Your task to perform on an android device: Open Yahoo.com Image 0: 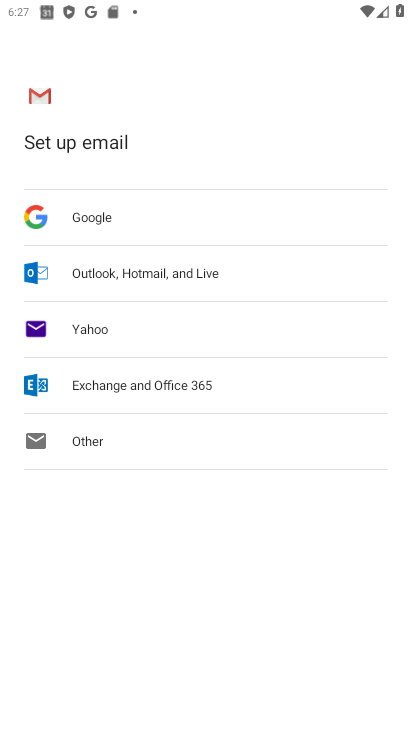
Step 0: press home button
Your task to perform on an android device: Open Yahoo.com Image 1: 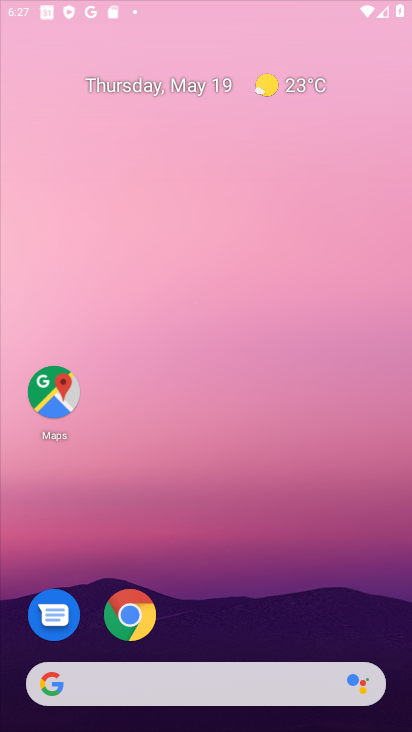
Step 1: drag from (310, 609) to (302, 59)
Your task to perform on an android device: Open Yahoo.com Image 2: 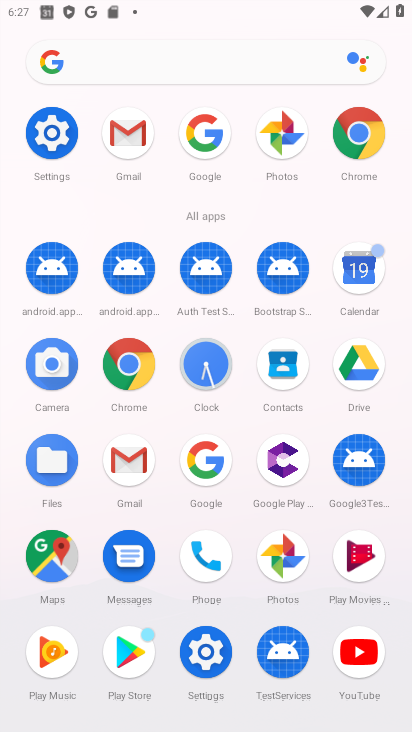
Step 2: click (356, 135)
Your task to perform on an android device: Open Yahoo.com Image 3: 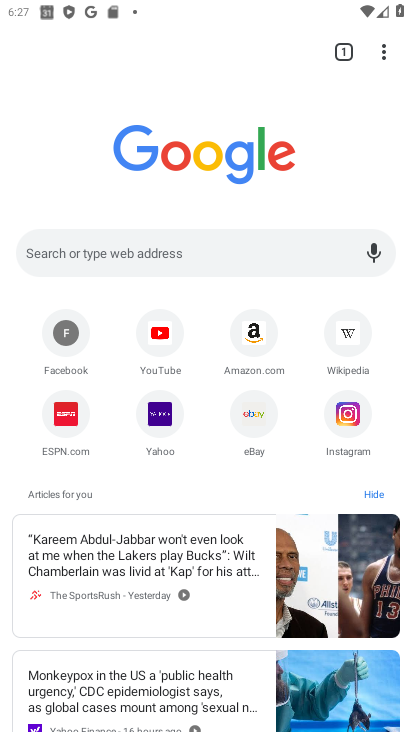
Step 3: click (169, 417)
Your task to perform on an android device: Open Yahoo.com Image 4: 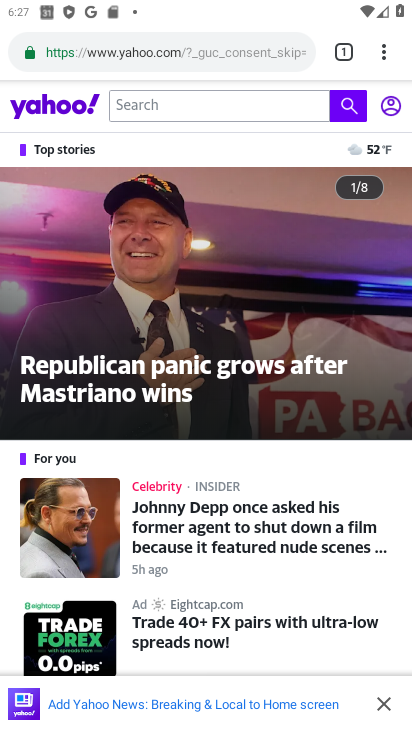
Step 4: task complete